Your task to perform on an android device: delete a single message in the gmail app Image 0: 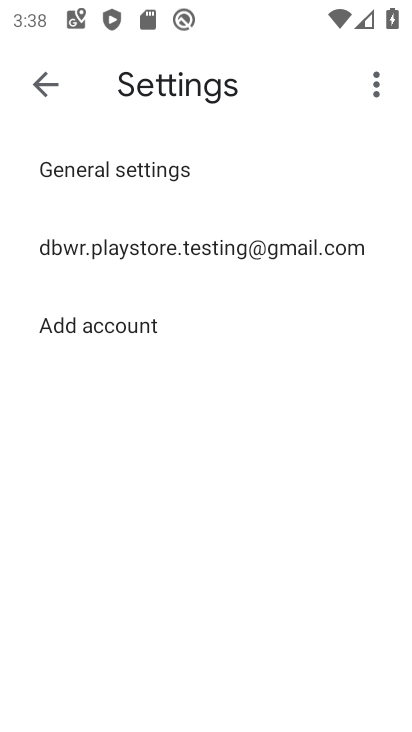
Step 0: press home button
Your task to perform on an android device: delete a single message in the gmail app Image 1: 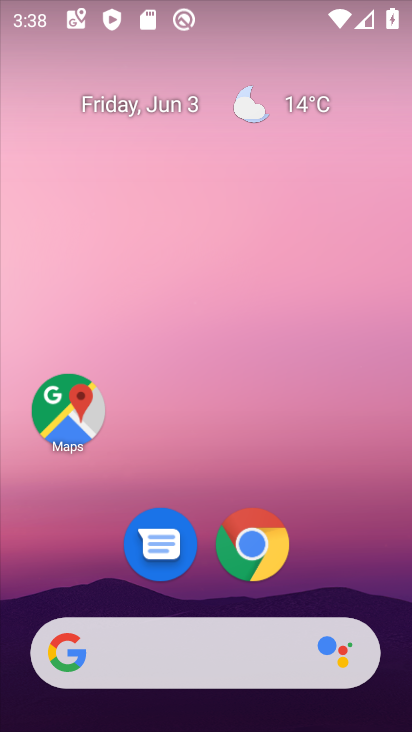
Step 1: drag from (410, 659) to (320, 51)
Your task to perform on an android device: delete a single message in the gmail app Image 2: 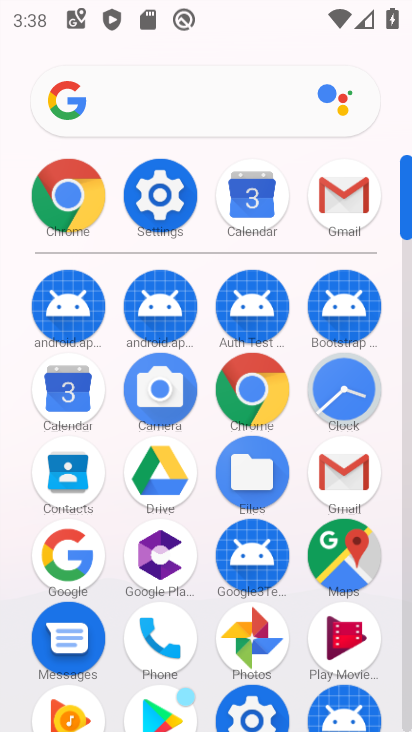
Step 2: click (403, 668)
Your task to perform on an android device: delete a single message in the gmail app Image 3: 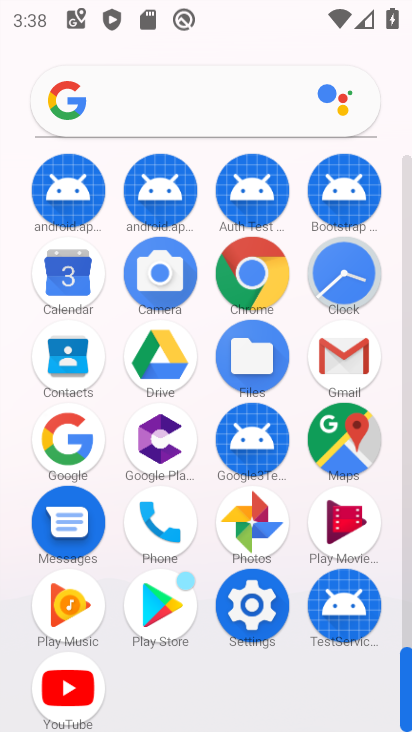
Step 3: click (346, 354)
Your task to perform on an android device: delete a single message in the gmail app Image 4: 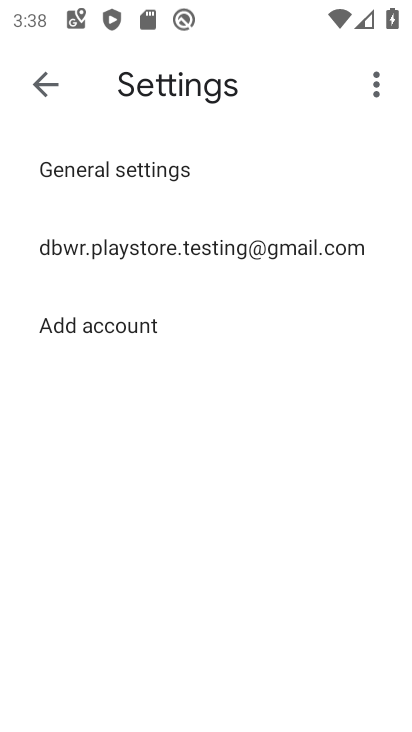
Step 4: press back button
Your task to perform on an android device: delete a single message in the gmail app Image 5: 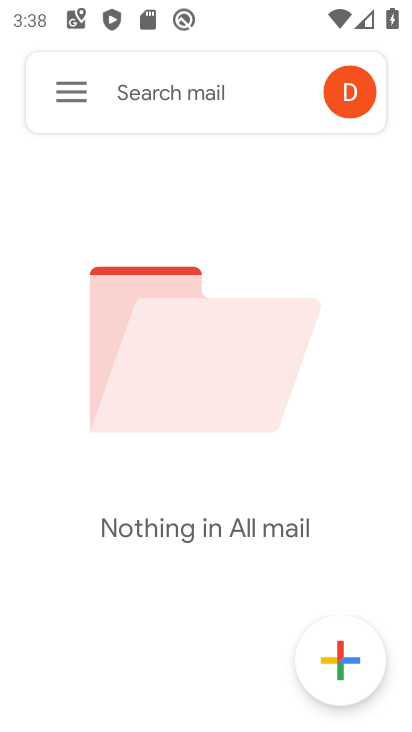
Step 5: click (57, 93)
Your task to perform on an android device: delete a single message in the gmail app Image 6: 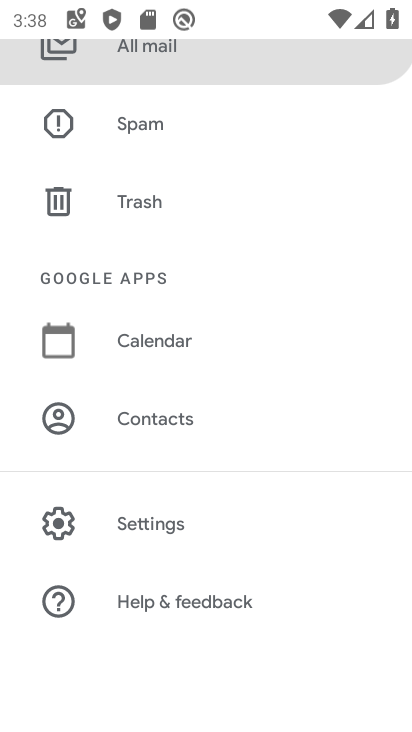
Step 6: drag from (167, 116) to (180, 328)
Your task to perform on an android device: delete a single message in the gmail app Image 7: 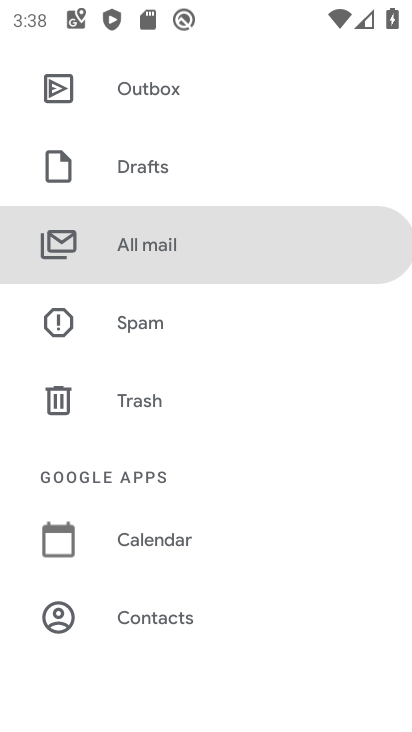
Step 7: click (185, 243)
Your task to perform on an android device: delete a single message in the gmail app Image 8: 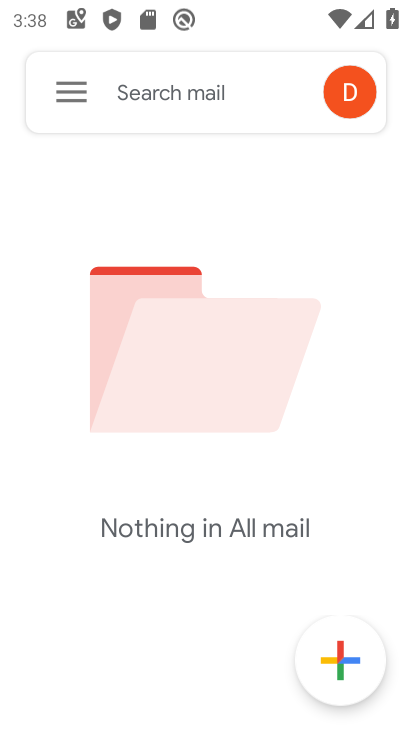
Step 8: task complete